Your task to perform on an android device: turn on javascript in the chrome app Image 0: 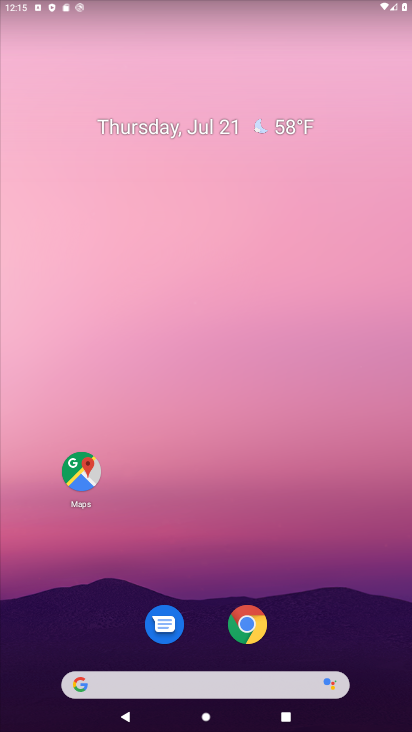
Step 0: click (257, 622)
Your task to perform on an android device: turn on javascript in the chrome app Image 1: 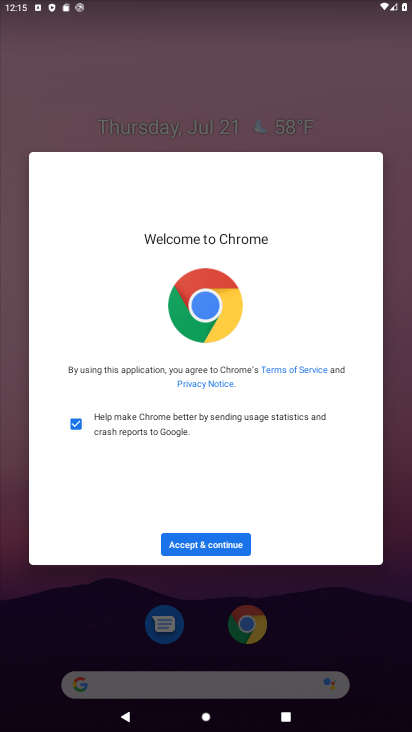
Step 1: click (232, 547)
Your task to perform on an android device: turn on javascript in the chrome app Image 2: 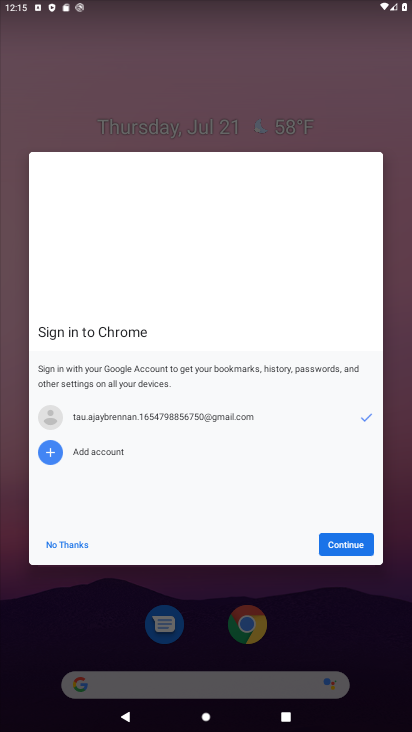
Step 2: click (333, 541)
Your task to perform on an android device: turn on javascript in the chrome app Image 3: 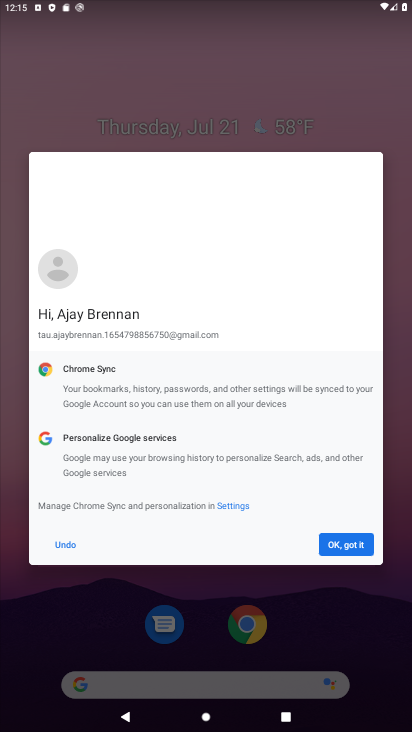
Step 3: click (347, 537)
Your task to perform on an android device: turn on javascript in the chrome app Image 4: 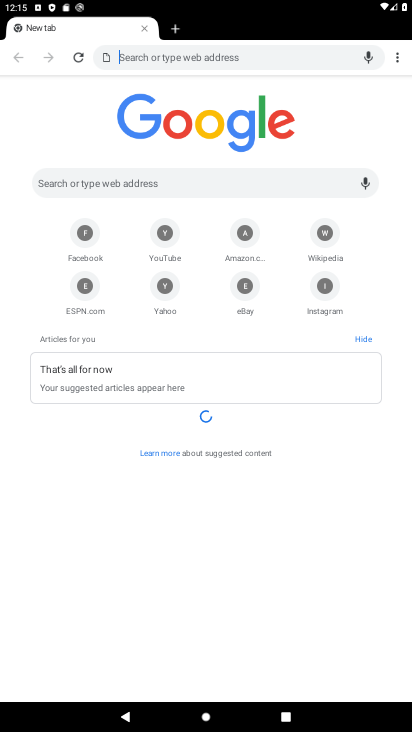
Step 4: click (391, 64)
Your task to perform on an android device: turn on javascript in the chrome app Image 5: 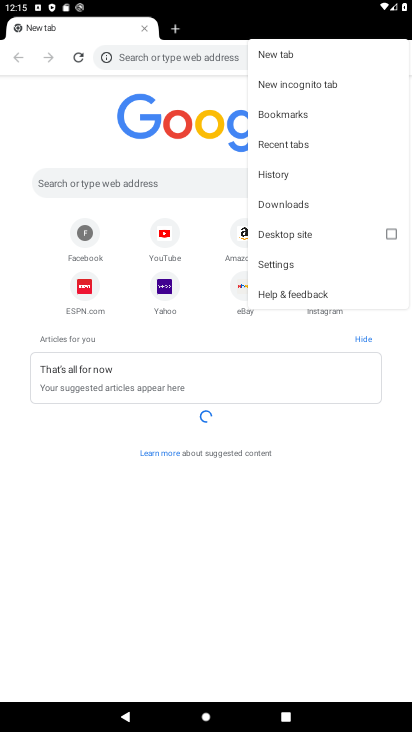
Step 5: click (302, 260)
Your task to perform on an android device: turn on javascript in the chrome app Image 6: 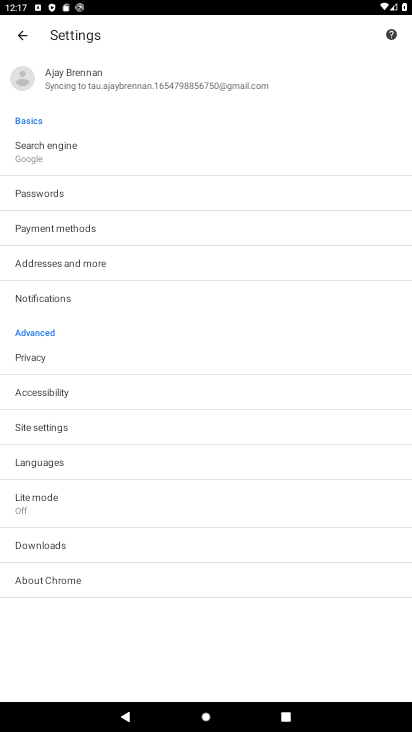
Step 6: click (46, 425)
Your task to perform on an android device: turn on javascript in the chrome app Image 7: 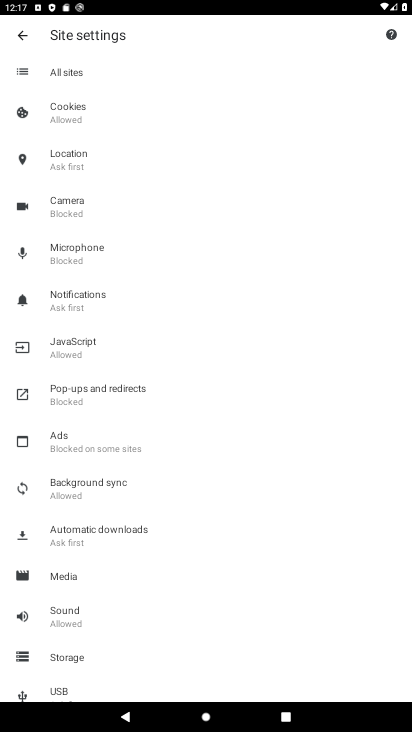
Step 7: click (89, 356)
Your task to perform on an android device: turn on javascript in the chrome app Image 8: 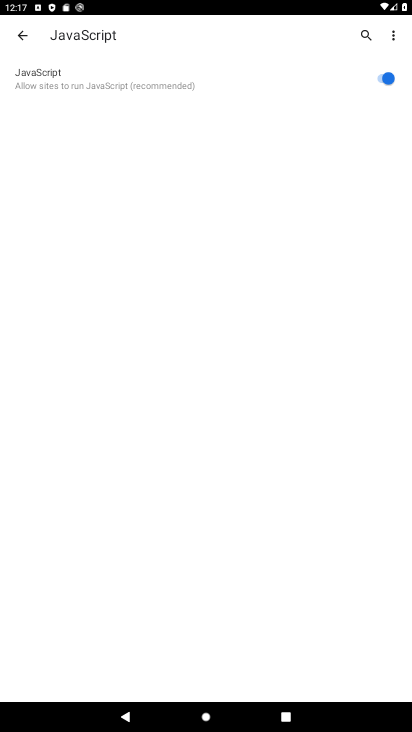
Step 8: task complete